Your task to perform on an android device: turn off airplane mode Image 0: 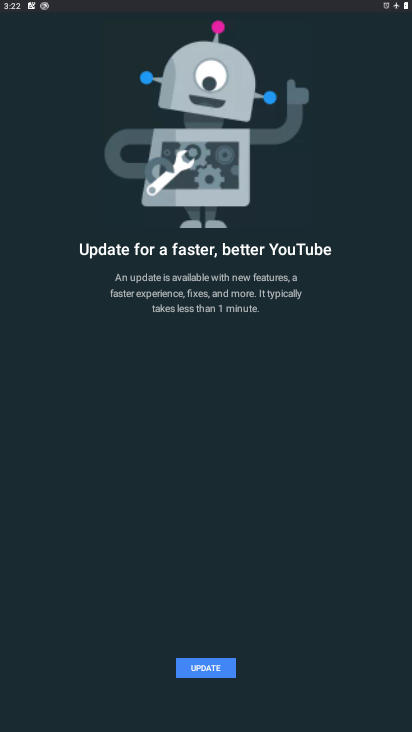
Step 0: press home button
Your task to perform on an android device: turn off airplane mode Image 1: 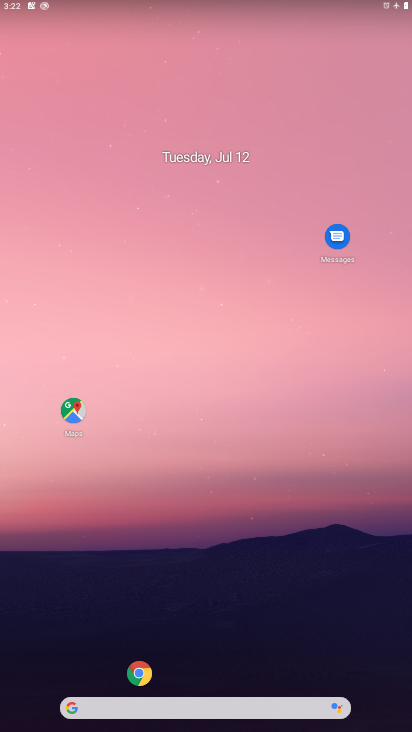
Step 1: drag from (43, 706) to (136, 224)
Your task to perform on an android device: turn off airplane mode Image 2: 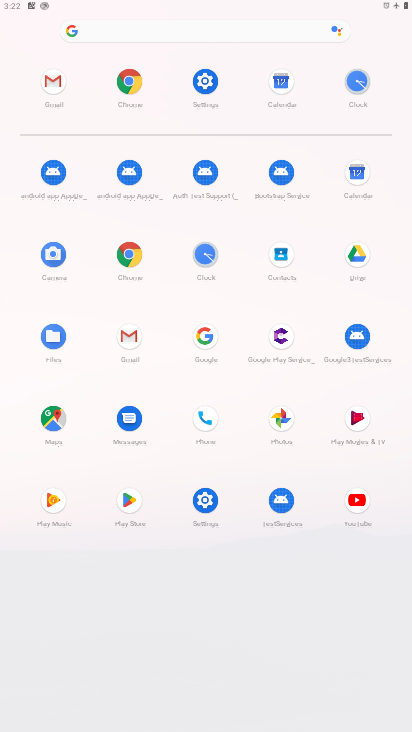
Step 2: click (196, 515)
Your task to perform on an android device: turn off airplane mode Image 3: 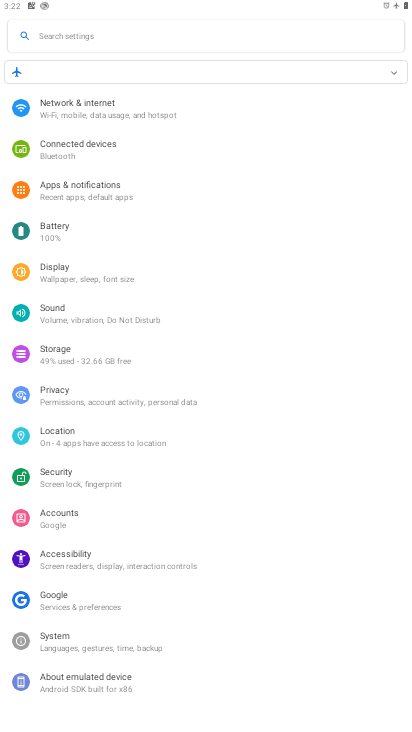
Step 3: click (112, 108)
Your task to perform on an android device: turn off airplane mode Image 4: 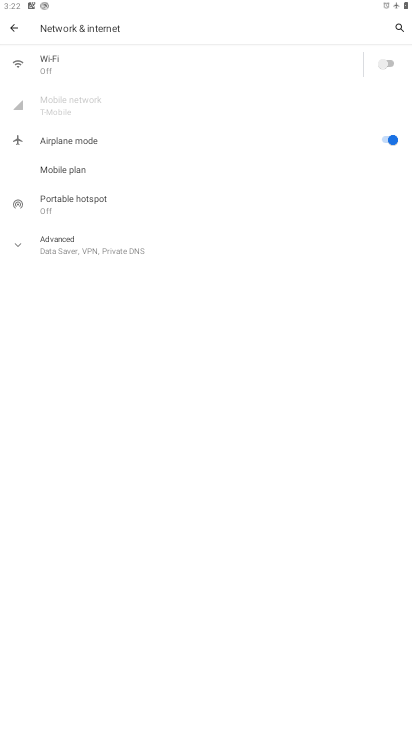
Step 4: click (394, 137)
Your task to perform on an android device: turn off airplane mode Image 5: 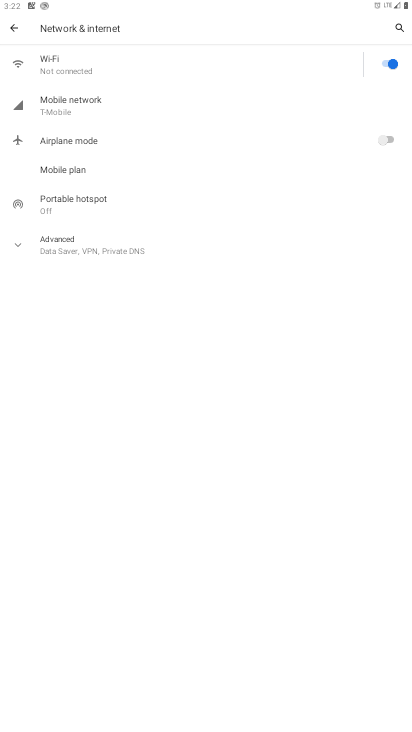
Step 5: task complete